Your task to perform on an android device: add a label to a message in the gmail app Image 0: 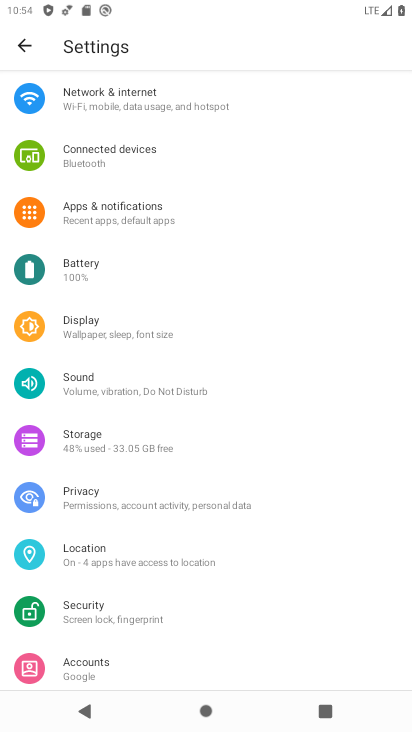
Step 0: press home button
Your task to perform on an android device: add a label to a message in the gmail app Image 1: 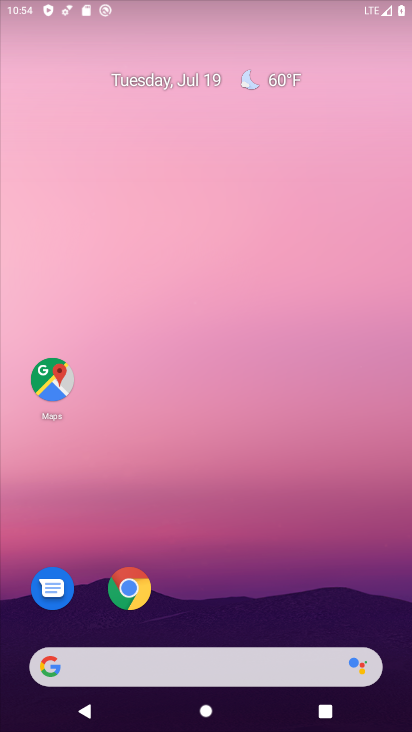
Step 1: drag from (355, 575) to (341, 7)
Your task to perform on an android device: add a label to a message in the gmail app Image 2: 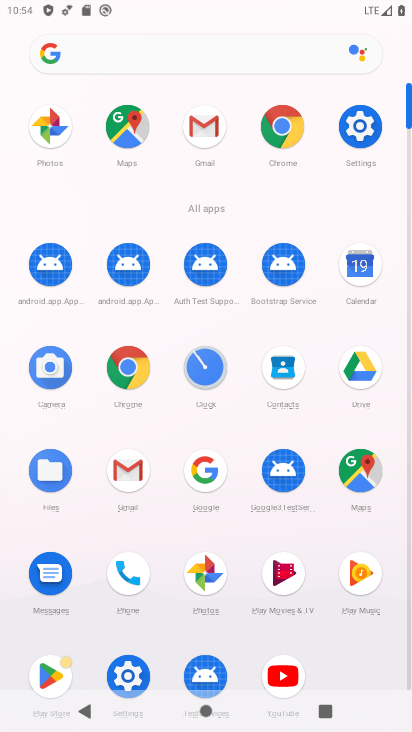
Step 2: click (197, 123)
Your task to perform on an android device: add a label to a message in the gmail app Image 3: 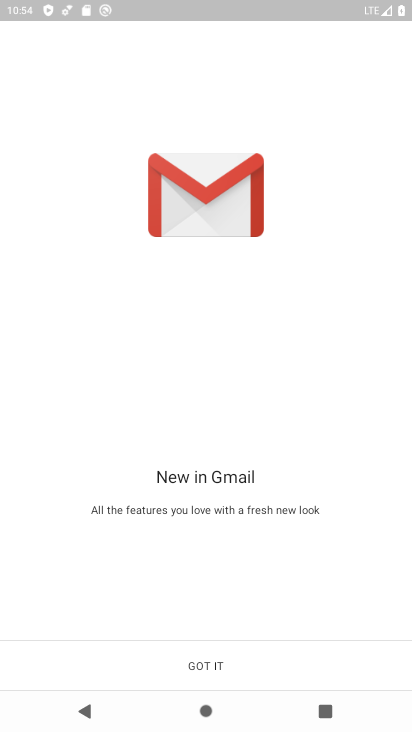
Step 3: click (219, 673)
Your task to perform on an android device: add a label to a message in the gmail app Image 4: 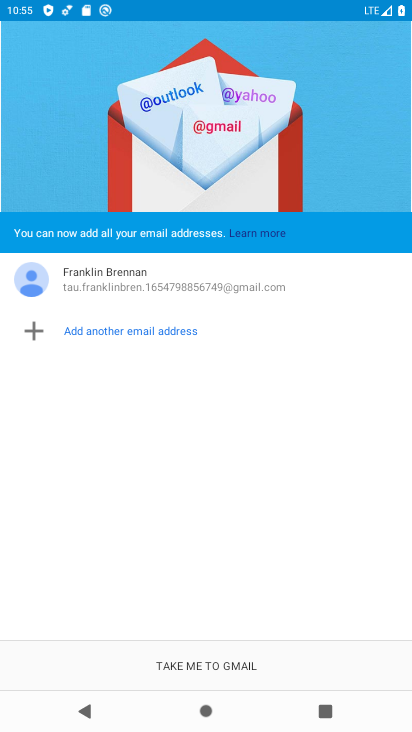
Step 4: click (181, 652)
Your task to perform on an android device: add a label to a message in the gmail app Image 5: 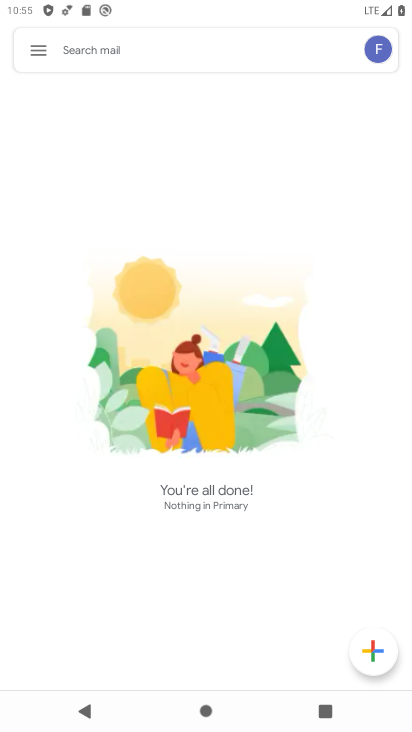
Step 5: task complete